Your task to perform on an android device: turn on location history Image 0: 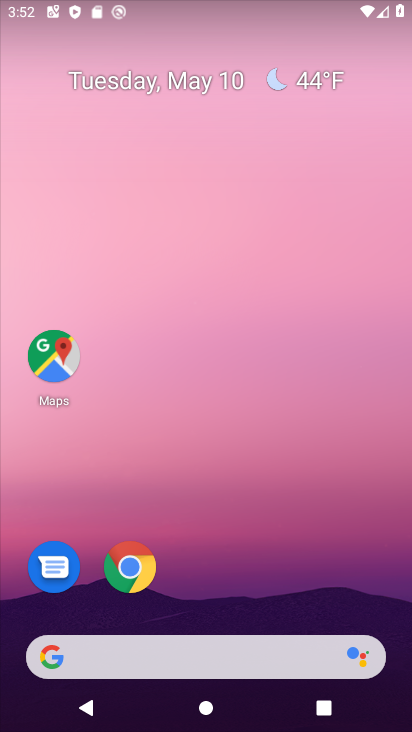
Step 0: drag from (249, 503) to (263, 99)
Your task to perform on an android device: turn on location history Image 1: 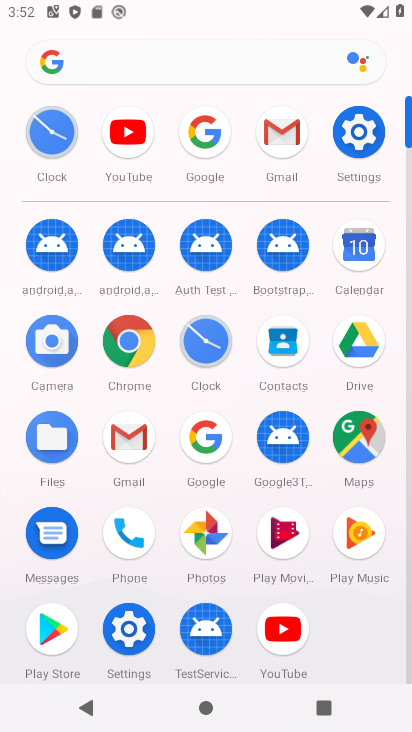
Step 1: click (360, 132)
Your task to perform on an android device: turn on location history Image 2: 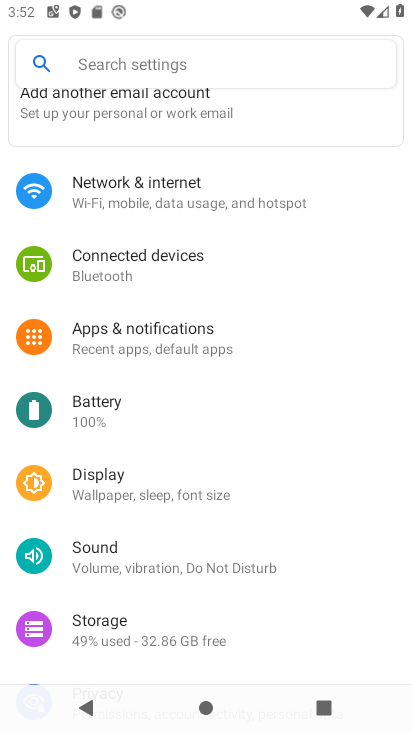
Step 2: drag from (142, 576) to (205, 412)
Your task to perform on an android device: turn on location history Image 3: 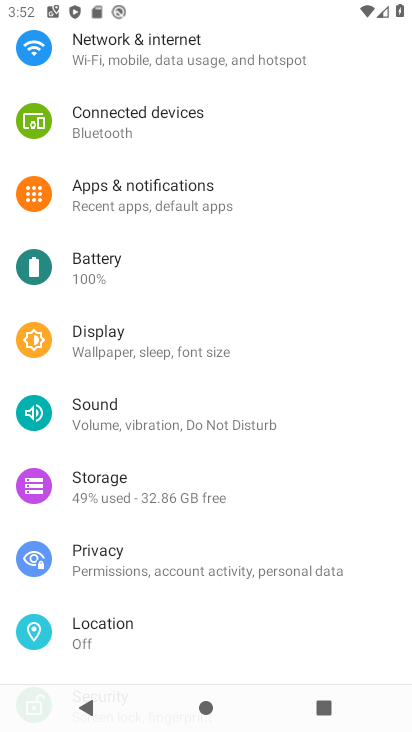
Step 3: click (111, 616)
Your task to perform on an android device: turn on location history Image 4: 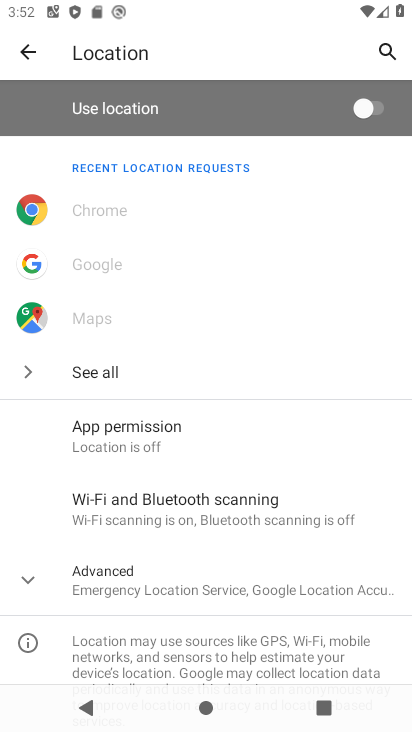
Step 4: click (176, 584)
Your task to perform on an android device: turn on location history Image 5: 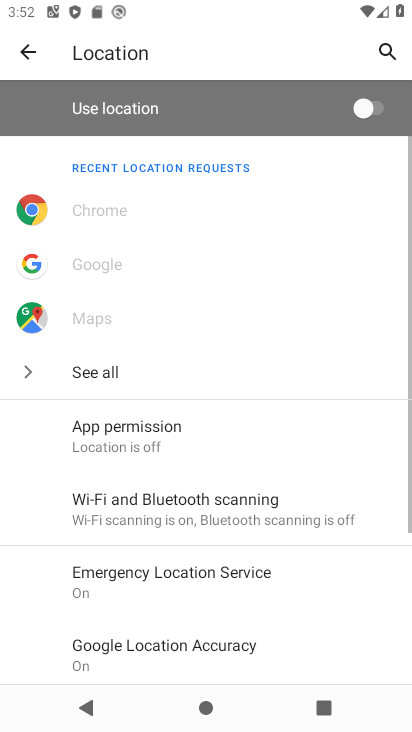
Step 5: drag from (176, 584) to (229, 373)
Your task to perform on an android device: turn on location history Image 6: 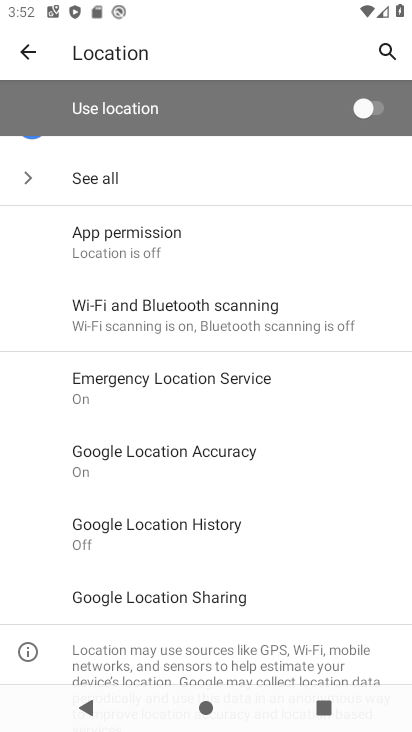
Step 6: click (179, 524)
Your task to perform on an android device: turn on location history Image 7: 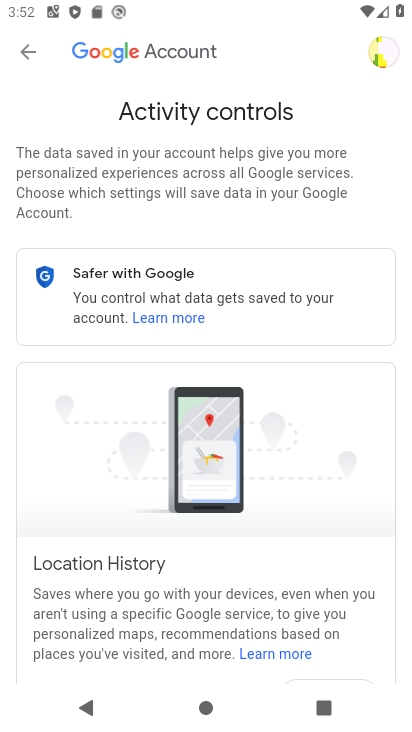
Step 7: task complete